Your task to perform on an android device: toggle pop-ups in chrome Image 0: 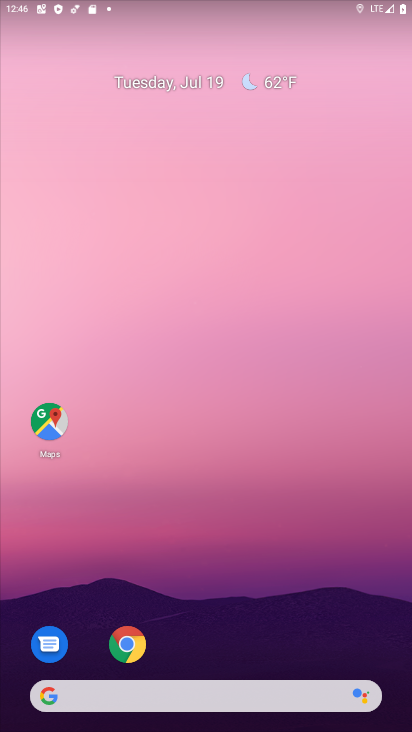
Step 0: click (131, 646)
Your task to perform on an android device: toggle pop-ups in chrome Image 1: 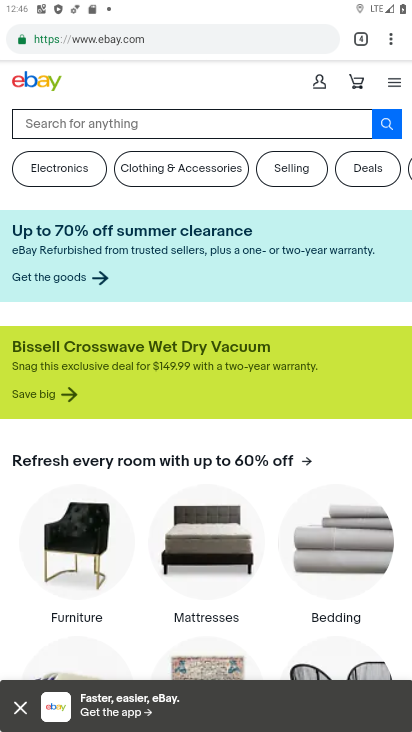
Step 1: click (389, 34)
Your task to perform on an android device: toggle pop-ups in chrome Image 2: 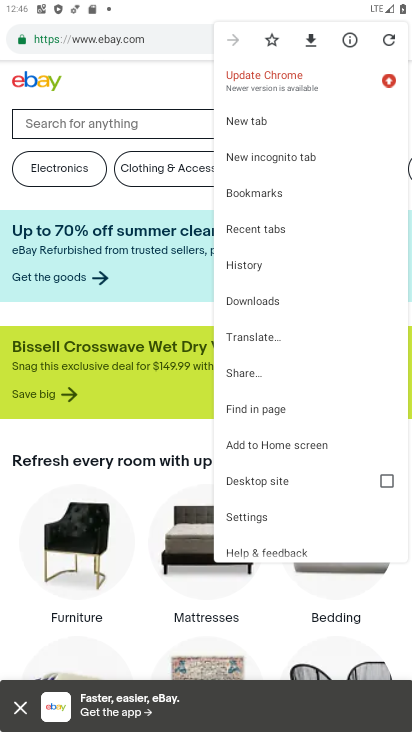
Step 2: click (257, 516)
Your task to perform on an android device: toggle pop-ups in chrome Image 3: 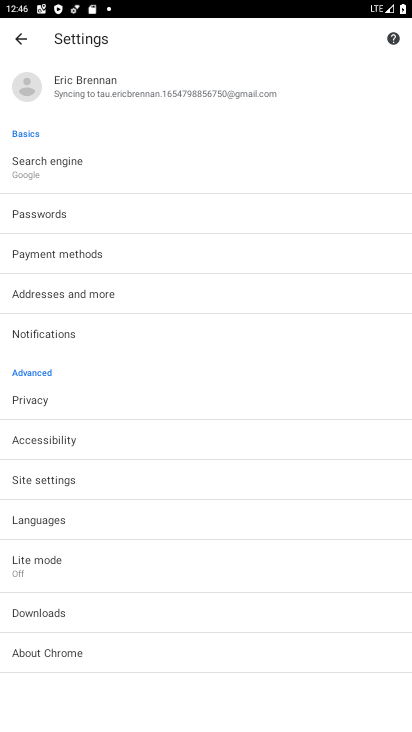
Step 3: click (34, 478)
Your task to perform on an android device: toggle pop-ups in chrome Image 4: 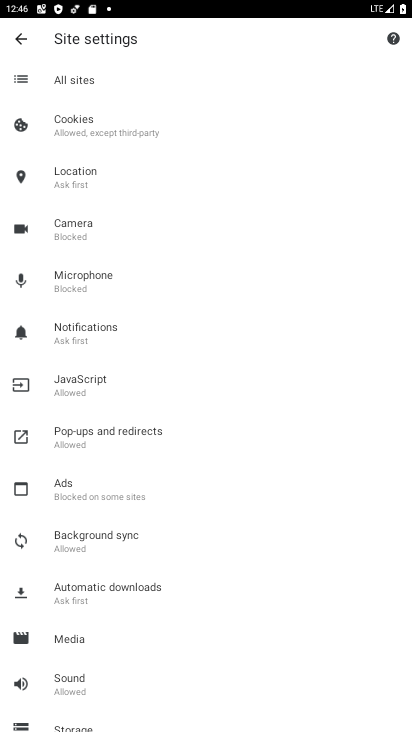
Step 4: click (75, 425)
Your task to perform on an android device: toggle pop-ups in chrome Image 5: 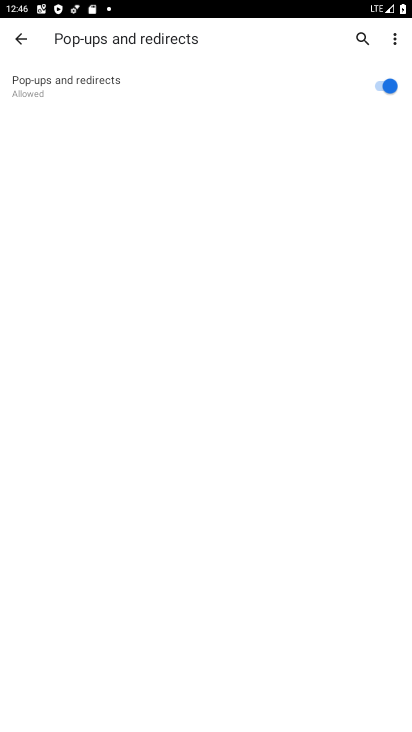
Step 5: click (393, 85)
Your task to perform on an android device: toggle pop-ups in chrome Image 6: 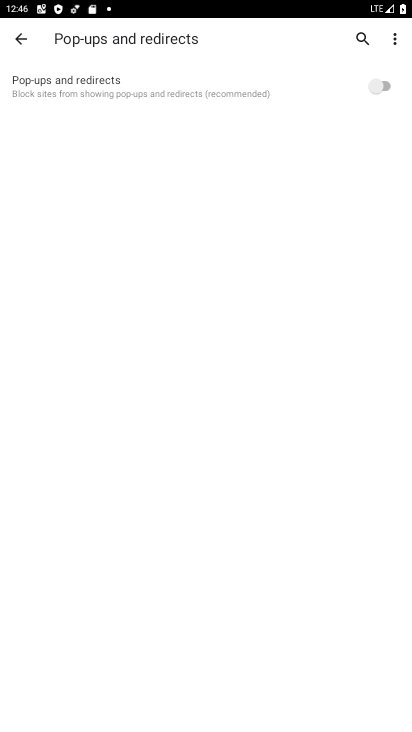
Step 6: task complete